Your task to perform on an android device: Open Reddit.com Image 0: 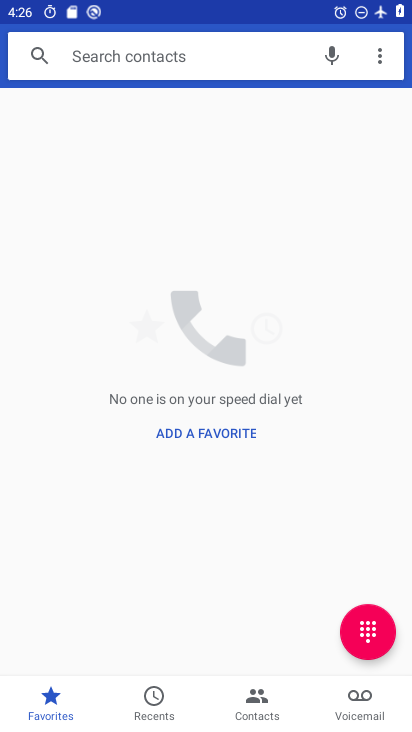
Step 0: press back button
Your task to perform on an android device: Open Reddit.com Image 1: 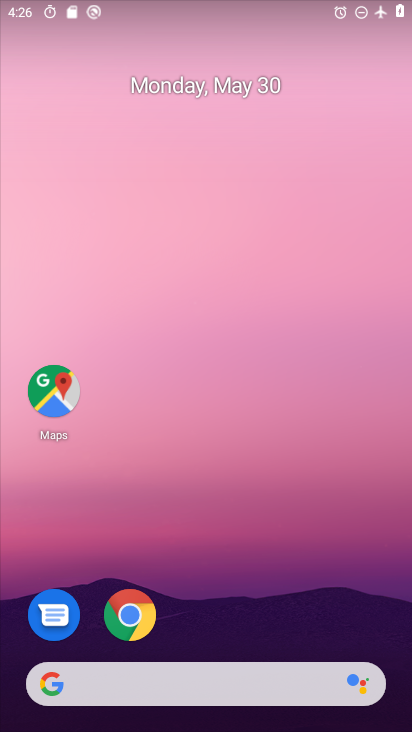
Step 1: click (132, 617)
Your task to perform on an android device: Open Reddit.com Image 2: 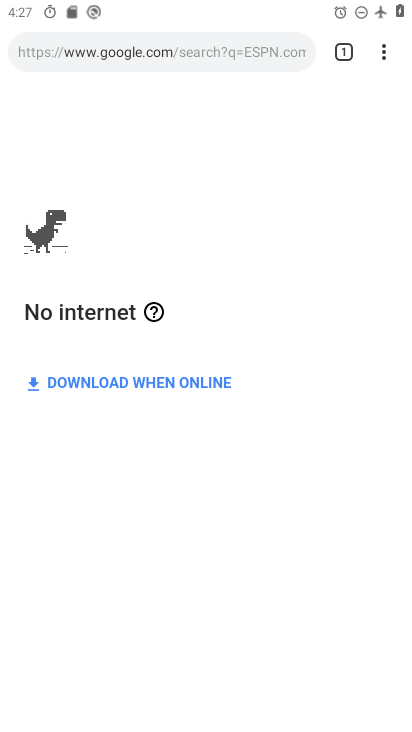
Step 2: click (191, 50)
Your task to perform on an android device: Open Reddit.com Image 3: 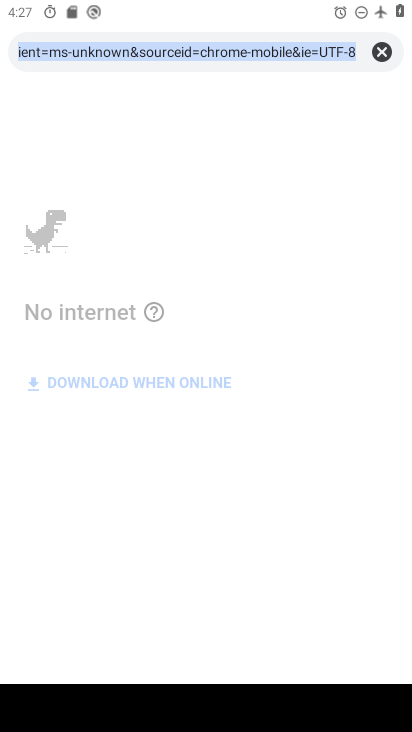
Step 3: click (381, 54)
Your task to perform on an android device: Open Reddit.com Image 4: 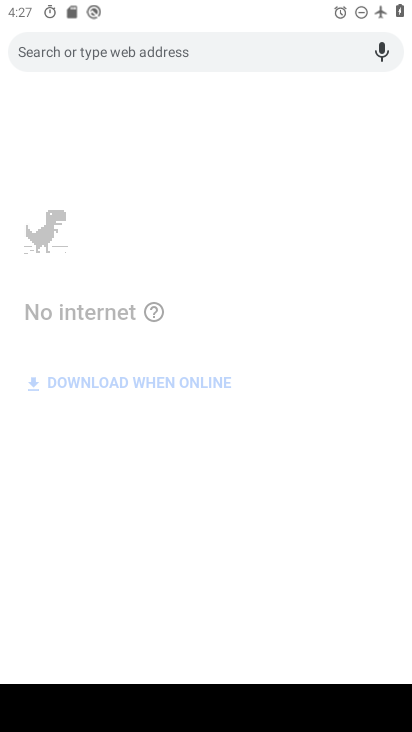
Step 4: type "Reddit.com"
Your task to perform on an android device: Open Reddit.com Image 5: 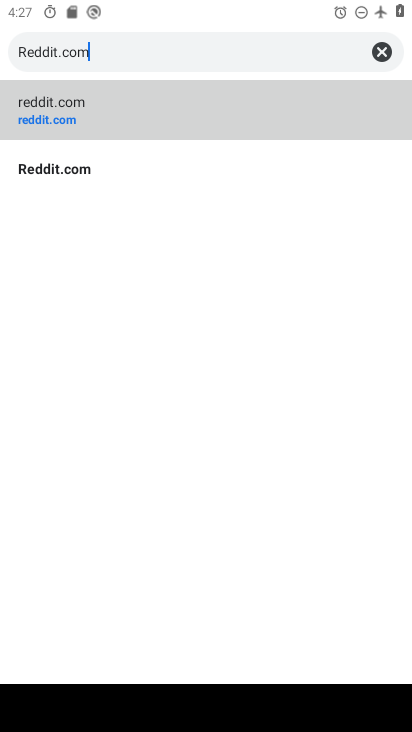
Step 5: click (86, 163)
Your task to perform on an android device: Open Reddit.com Image 6: 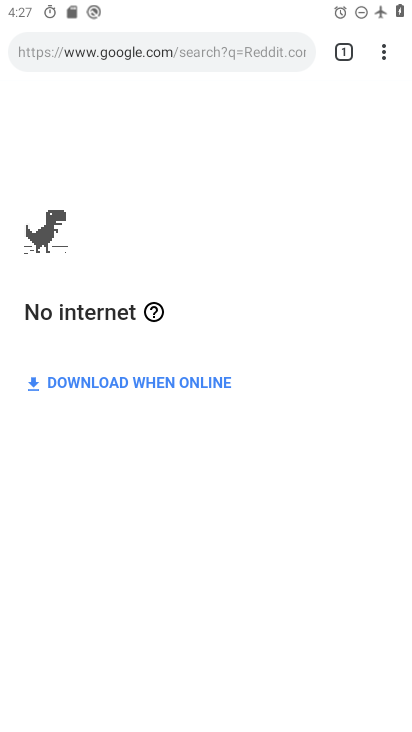
Step 6: task complete